Your task to perform on an android device: allow cookies in the chrome app Image 0: 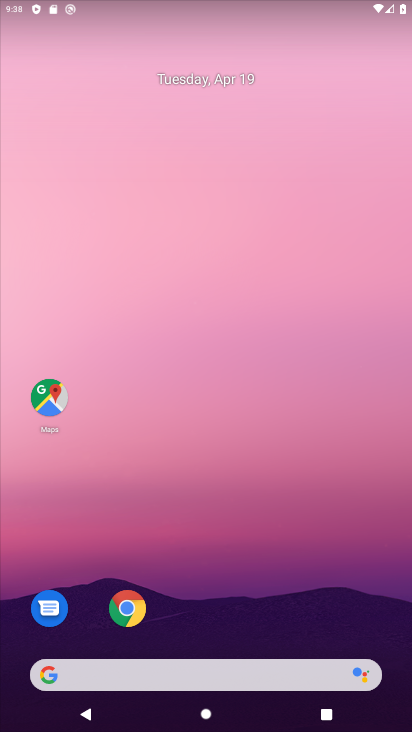
Step 0: drag from (338, 419) to (302, 125)
Your task to perform on an android device: allow cookies in the chrome app Image 1: 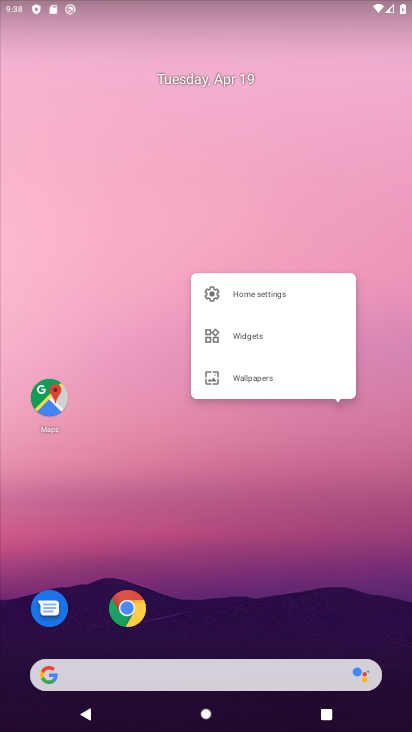
Step 1: drag from (366, 582) to (321, 122)
Your task to perform on an android device: allow cookies in the chrome app Image 2: 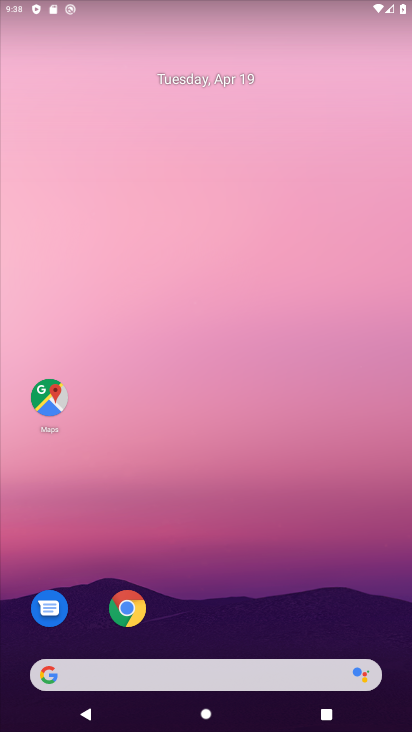
Step 2: drag from (322, 310) to (299, 184)
Your task to perform on an android device: allow cookies in the chrome app Image 3: 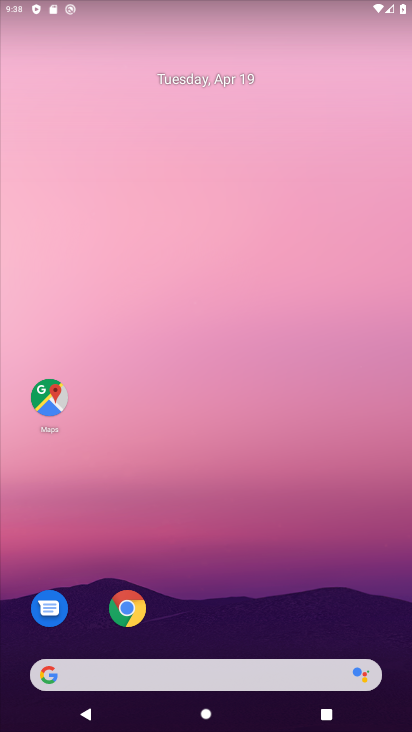
Step 3: click (116, 599)
Your task to perform on an android device: allow cookies in the chrome app Image 4: 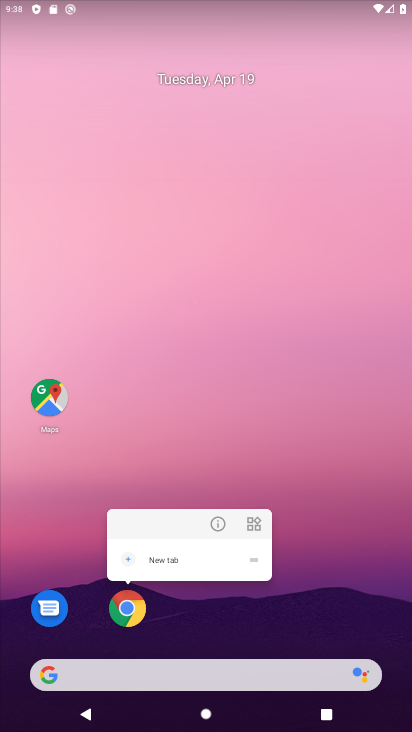
Step 4: click (133, 610)
Your task to perform on an android device: allow cookies in the chrome app Image 5: 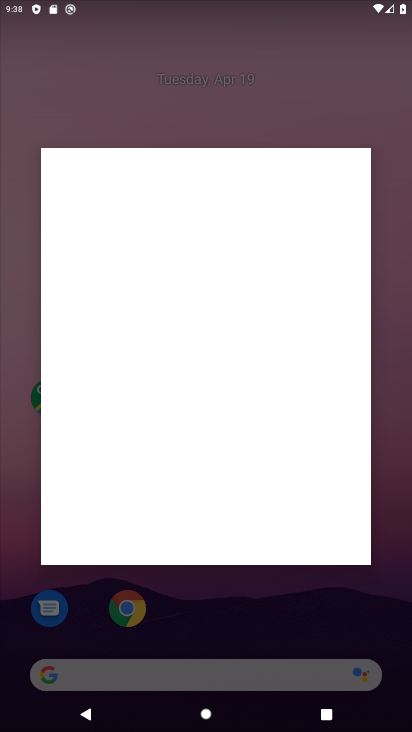
Step 5: click (133, 610)
Your task to perform on an android device: allow cookies in the chrome app Image 6: 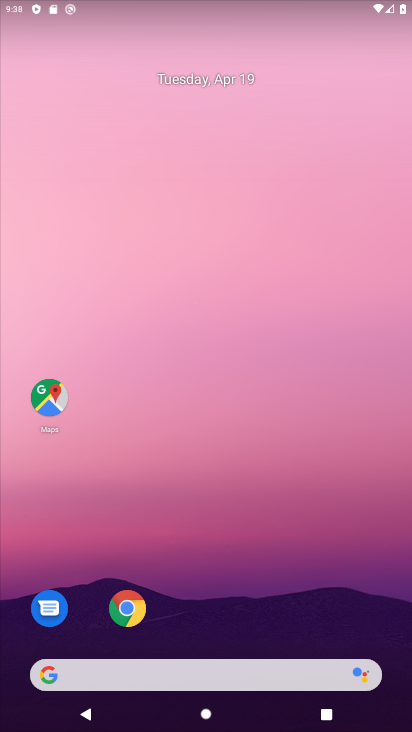
Step 6: click (132, 606)
Your task to perform on an android device: allow cookies in the chrome app Image 7: 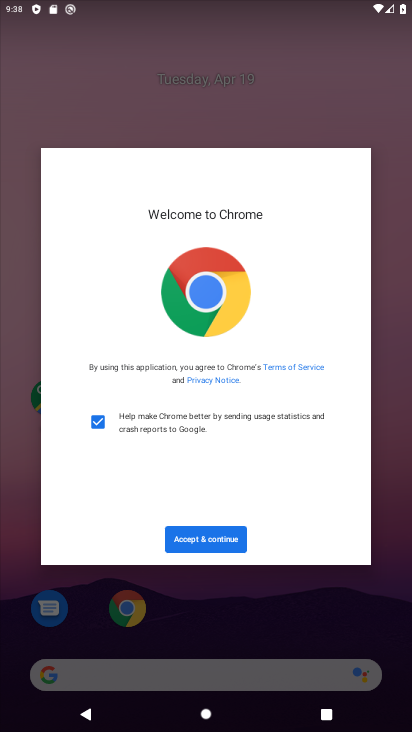
Step 7: click (191, 526)
Your task to perform on an android device: allow cookies in the chrome app Image 8: 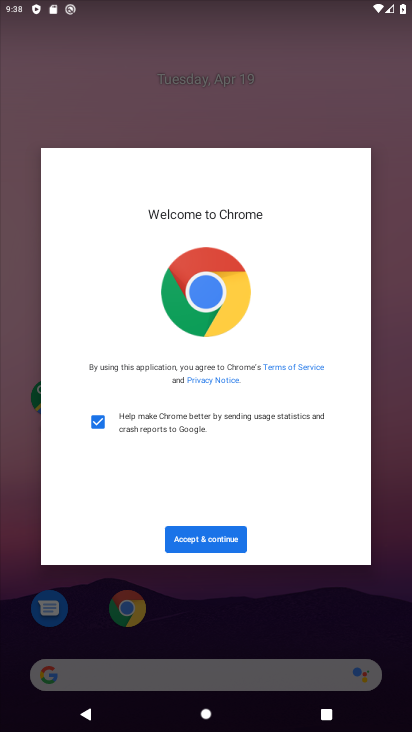
Step 8: click (206, 531)
Your task to perform on an android device: allow cookies in the chrome app Image 9: 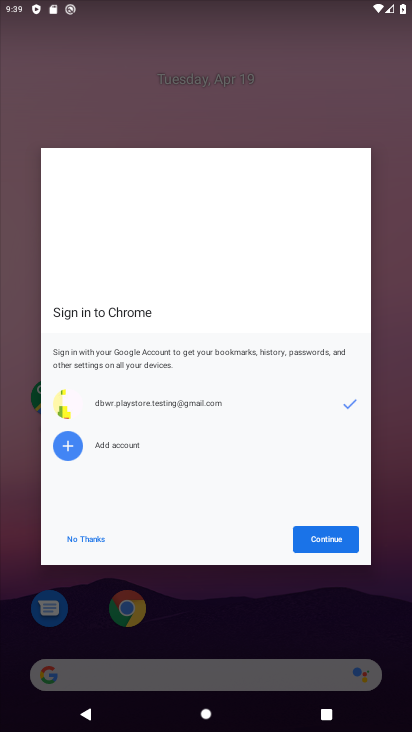
Step 9: click (309, 534)
Your task to perform on an android device: allow cookies in the chrome app Image 10: 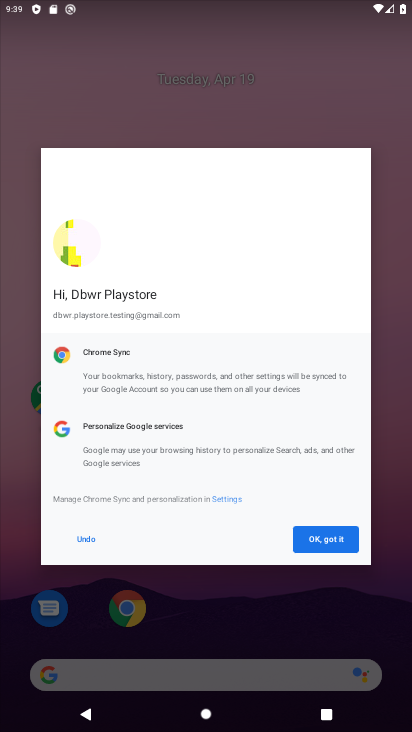
Step 10: click (309, 534)
Your task to perform on an android device: allow cookies in the chrome app Image 11: 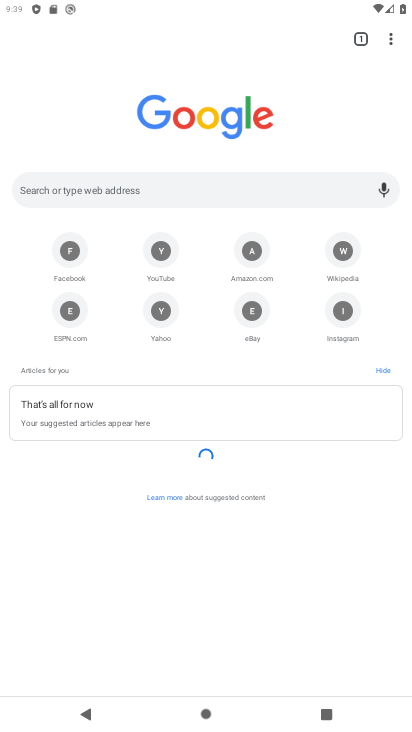
Step 11: click (388, 31)
Your task to perform on an android device: allow cookies in the chrome app Image 12: 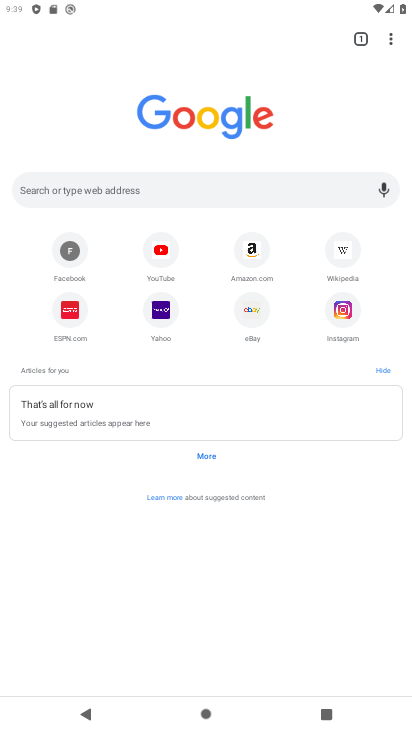
Step 12: click (388, 36)
Your task to perform on an android device: allow cookies in the chrome app Image 13: 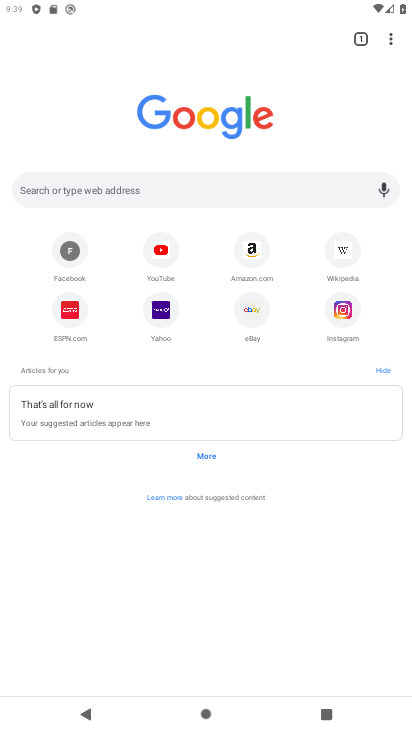
Step 13: click (388, 36)
Your task to perform on an android device: allow cookies in the chrome app Image 14: 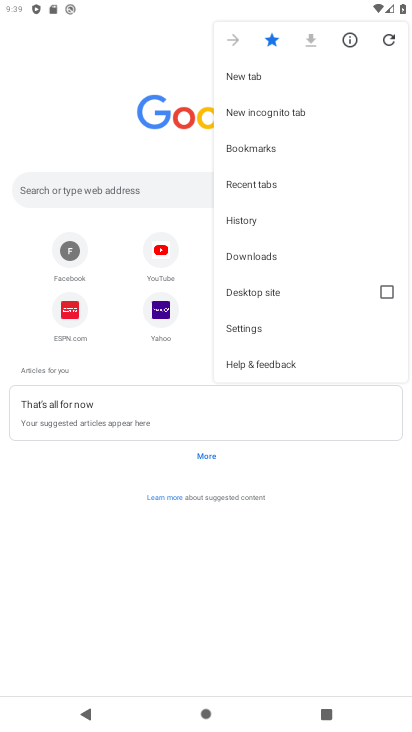
Step 14: click (388, 36)
Your task to perform on an android device: allow cookies in the chrome app Image 15: 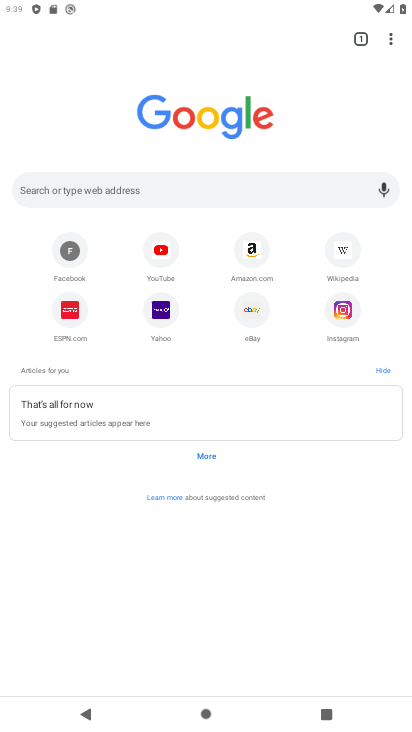
Step 15: click (387, 31)
Your task to perform on an android device: allow cookies in the chrome app Image 16: 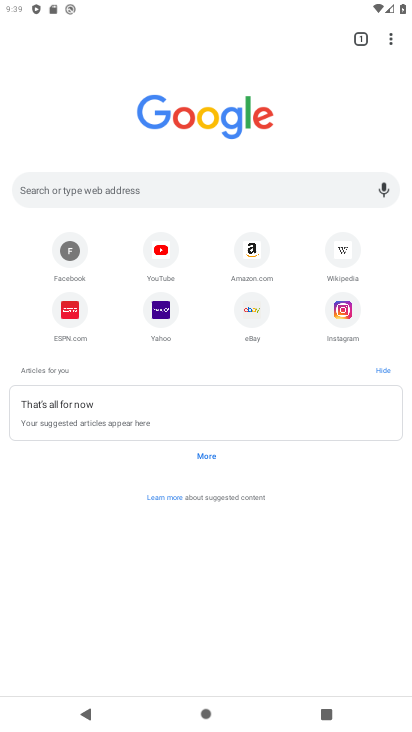
Step 16: click (389, 34)
Your task to perform on an android device: allow cookies in the chrome app Image 17: 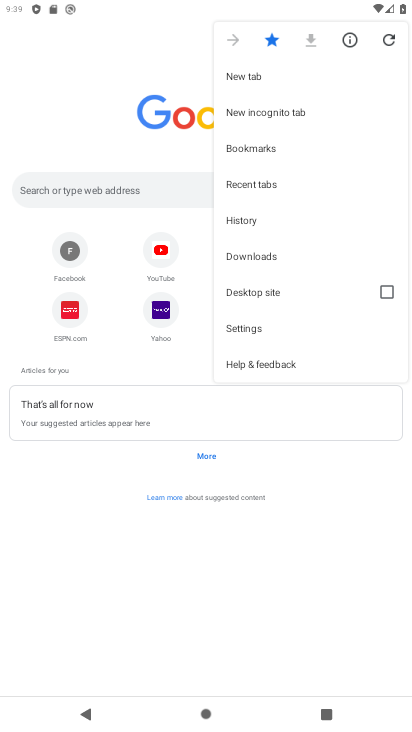
Step 17: click (233, 322)
Your task to perform on an android device: allow cookies in the chrome app Image 18: 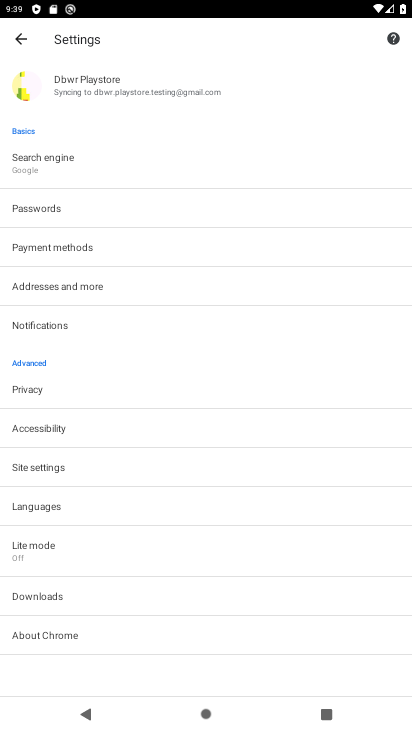
Step 18: click (69, 463)
Your task to perform on an android device: allow cookies in the chrome app Image 19: 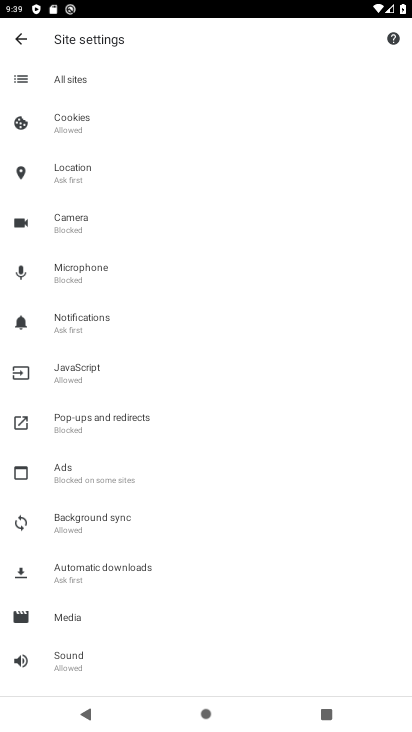
Step 19: click (62, 368)
Your task to perform on an android device: allow cookies in the chrome app Image 20: 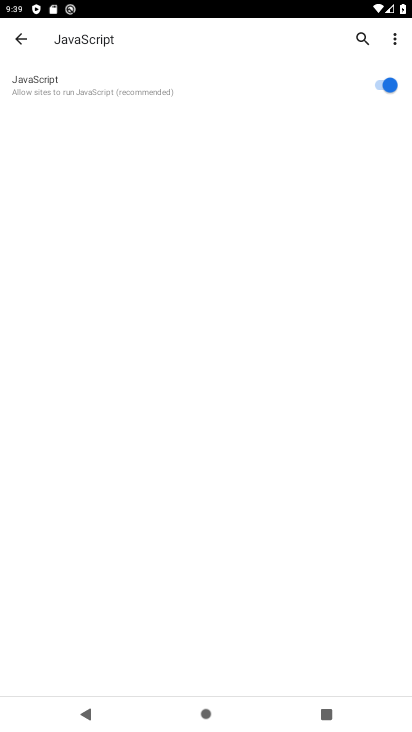
Step 20: press back button
Your task to perform on an android device: allow cookies in the chrome app Image 21: 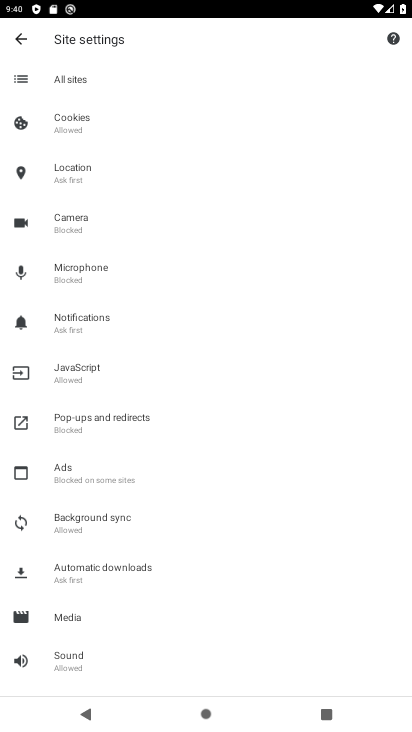
Step 21: click (73, 109)
Your task to perform on an android device: allow cookies in the chrome app Image 22: 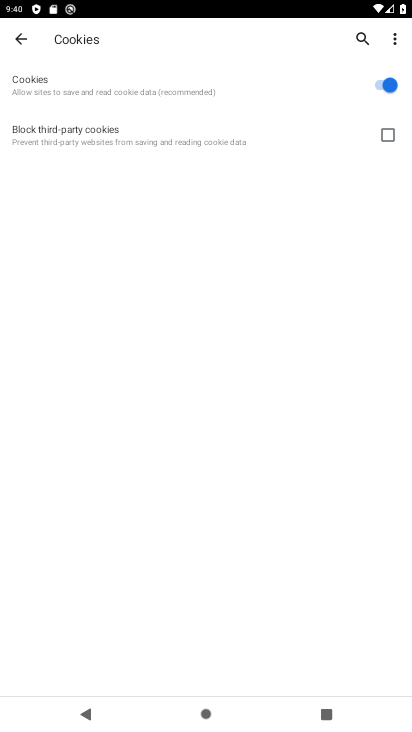
Step 22: task complete